Your task to perform on an android device: Go to Google maps Image 0: 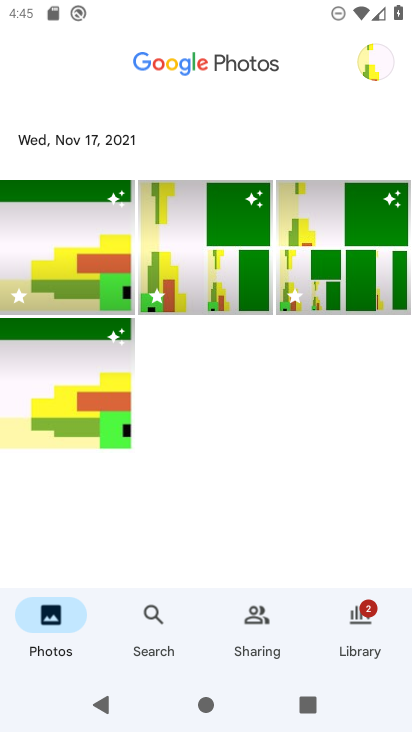
Step 0: press home button
Your task to perform on an android device: Go to Google maps Image 1: 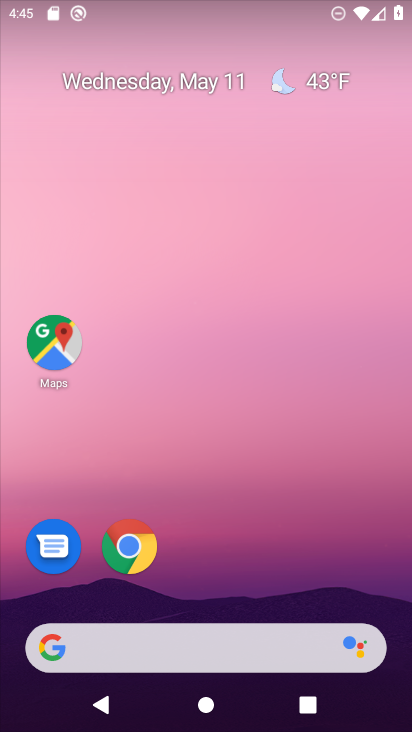
Step 1: click (58, 362)
Your task to perform on an android device: Go to Google maps Image 2: 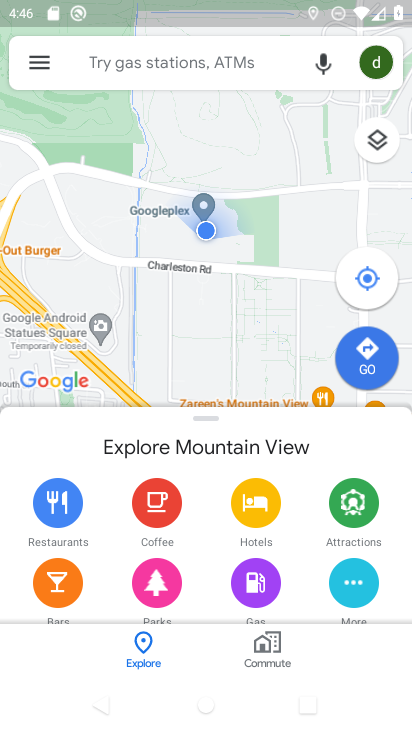
Step 2: task complete